Your task to perform on an android device: set an alarm Image 0: 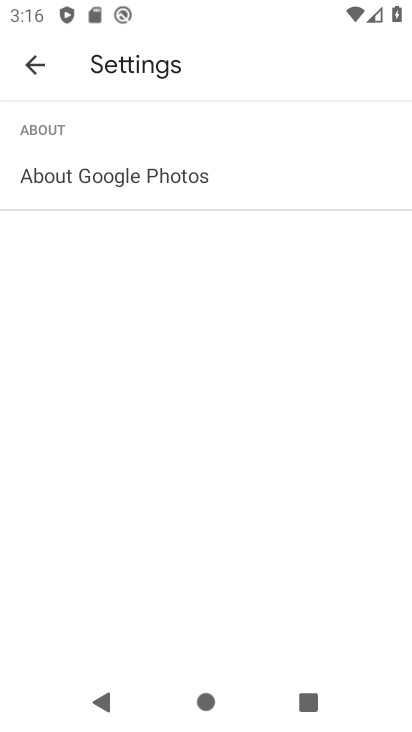
Step 0: press home button
Your task to perform on an android device: set an alarm Image 1: 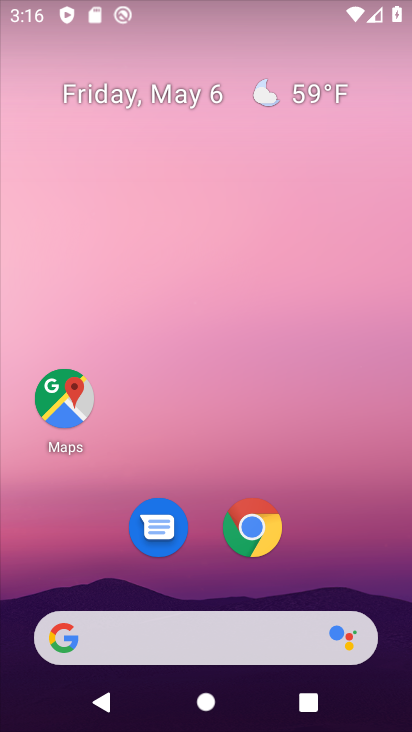
Step 1: drag from (214, 481) to (224, 11)
Your task to perform on an android device: set an alarm Image 2: 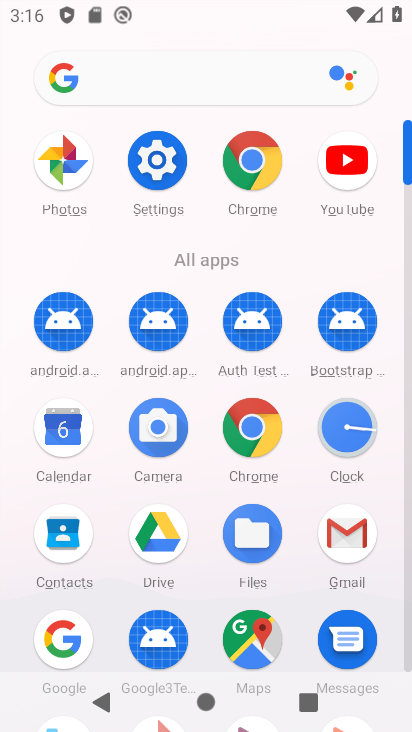
Step 2: click (350, 422)
Your task to perform on an android device: set an alarm Image 3: 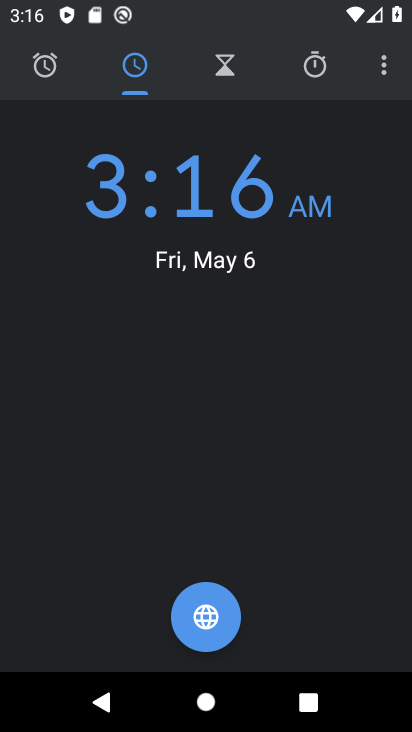
Step 3: click (46, 73)
Your task to perform on an android device: set an alarm Image 4: 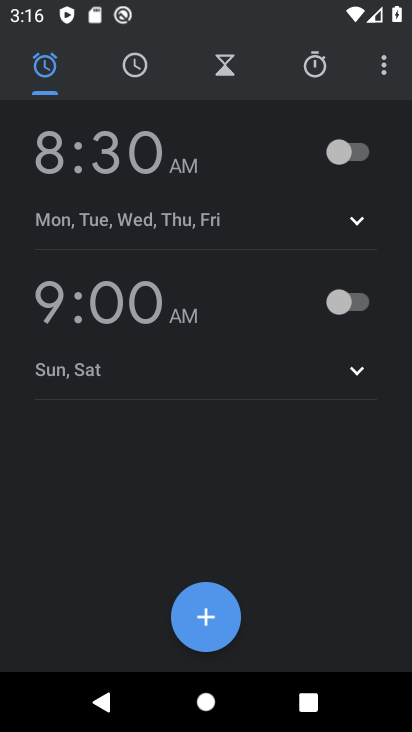
Step 4: click (208, 612)
Your task to perform on an android device: set an alarm Image 5: 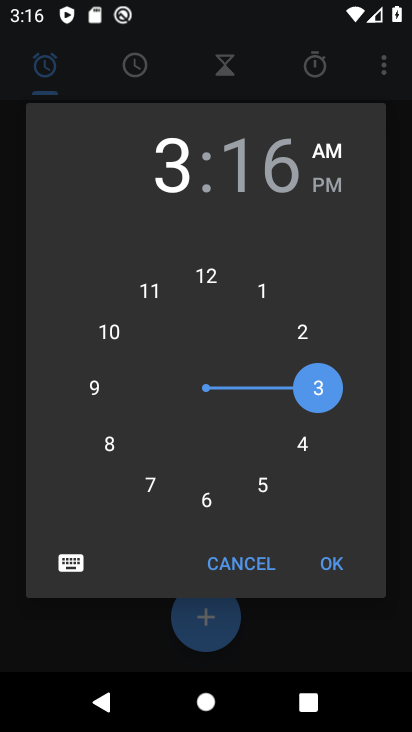
Step 5: click (326, 562)
Your task to perform on an android device: set an alarm Image 6: 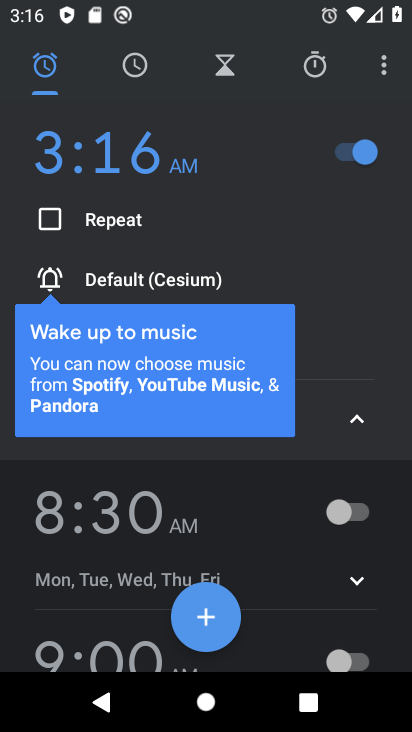
Step 6: task complete